Your task to perform on an android device: check the backup settings in the google photos Image 0: 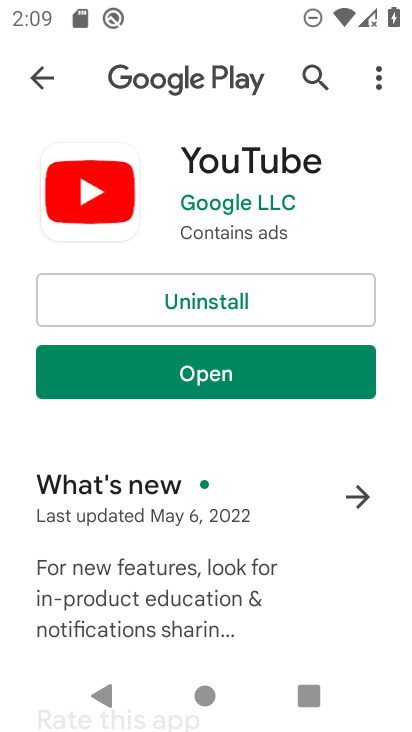
Step 0: press home button
Your task to perform on an android device: check the backup settings in the google photos Image 1: 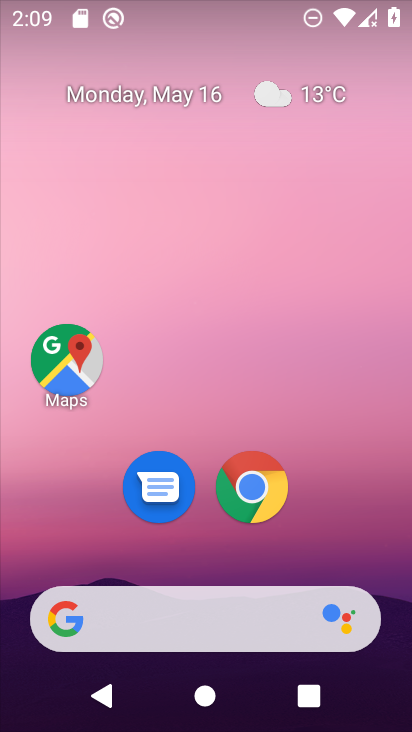
Step 1: drag from (403, 490) to (403, 286)
Your task to perform on an android device: check the backup settings in the google photos Image 2: 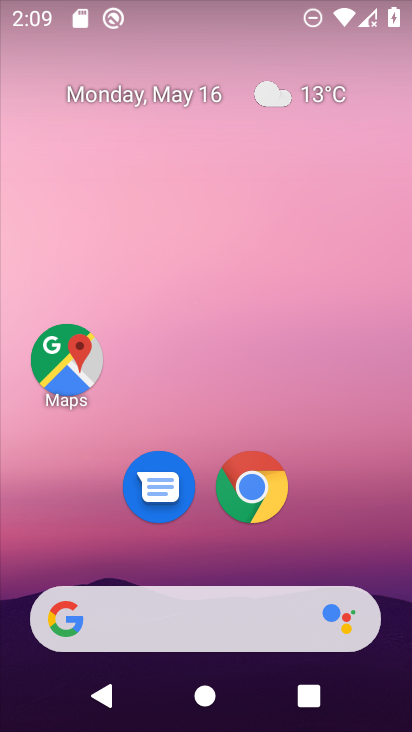
Step 2: drag from (390, 674) to (406, 244)
Your task to perform on an android device: check the backup settings in the google photos Image 3: 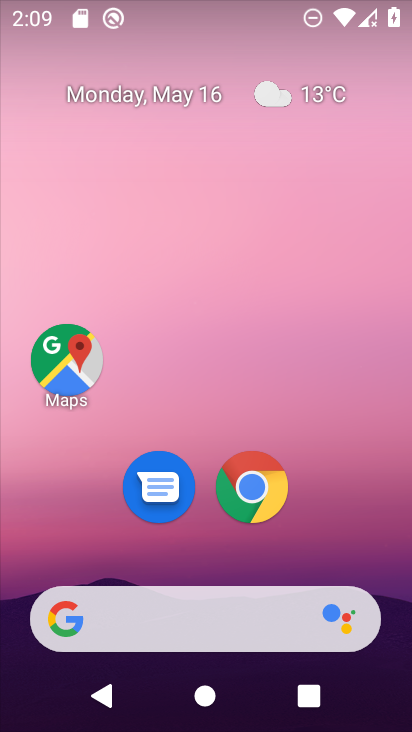
Step 3: drag from (395, 691) to (372, 272)
Your task to perform on an android device: check the backup settings in the google photos Image 4: 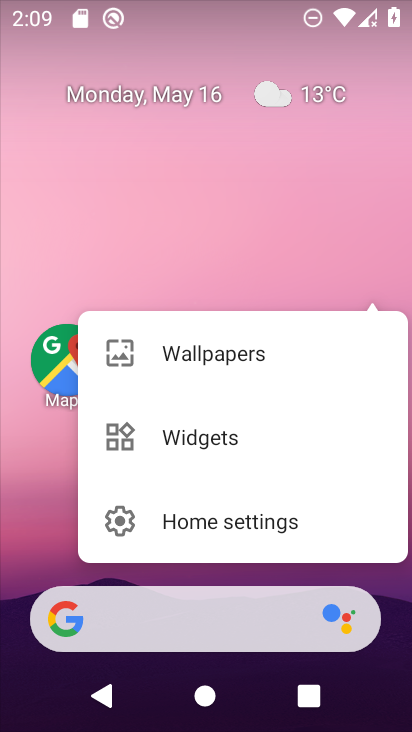
Step 4: click (345, 224)
Your task to perform on an android device: check the backup settings in the google photos Image 5: 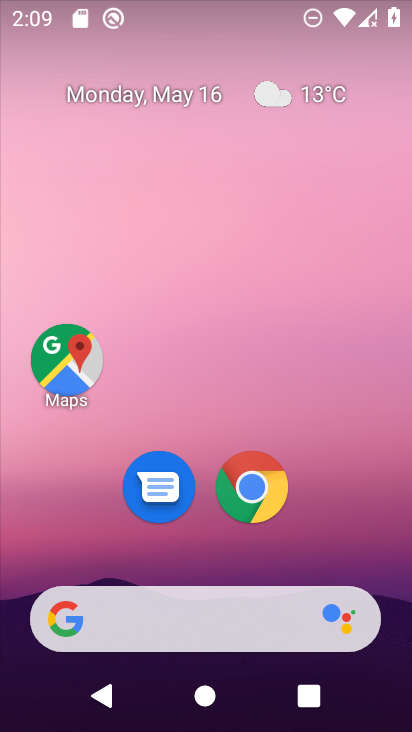
Step 5: drag from (395, 655) to (389, 288)
Your task to perform on an android device: check the backup settings in the google photos Image 6: 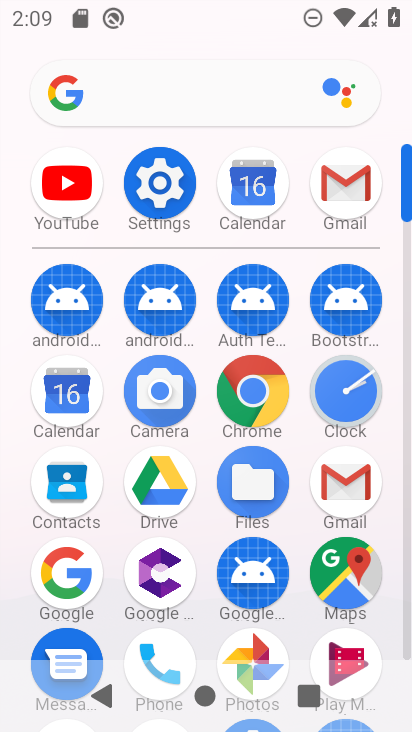
Step 6: click (250, 635)
Your task to perform on an android device: check the backup settings in the google photos Image 7: 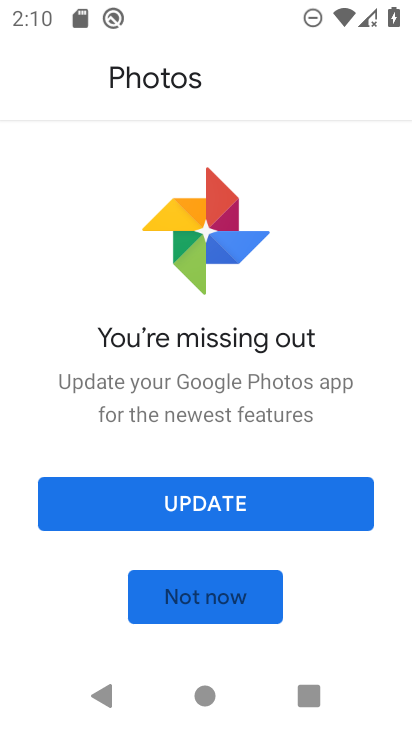
Step 7: click (203, 500)
Your task to perform on an android device: check the backup settings in the google photos Image 8: 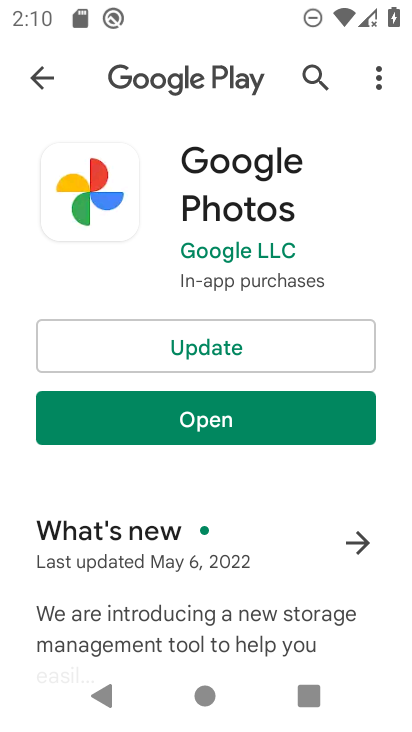
Step 8: click (245, 338)
Your task to perform on an android device: check the backup settings in the google photos Image 9: 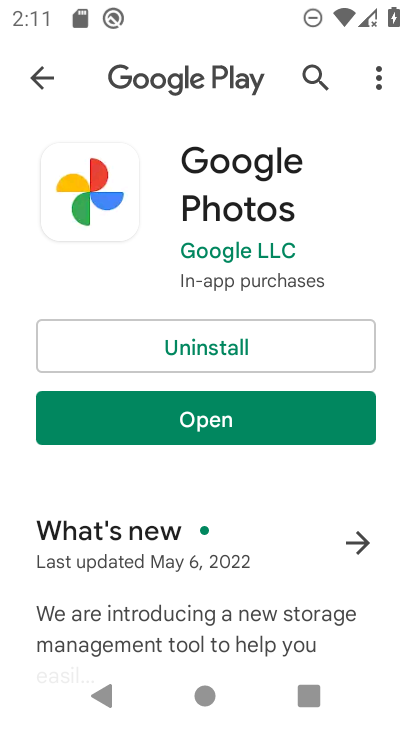
Step 9: click (205, 412)
Your task to perform on an android device: check the backup settings in the google photos Image 10: 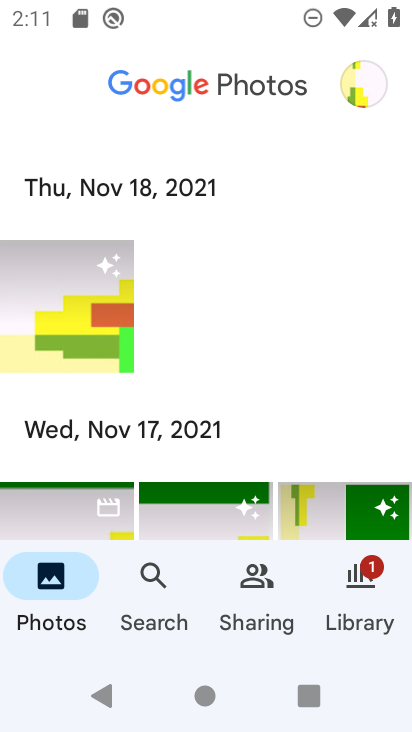
Step 10: click (370, 96)
Your task to perform on an android device: check the backup settings in the google photos Image 11: 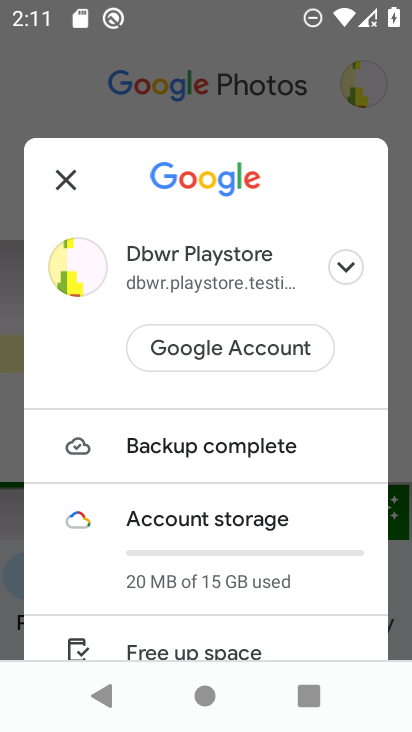
Step 11: click (190, 449)
Your task to perform on an android device: check the backup settings in the google photos Image 12: 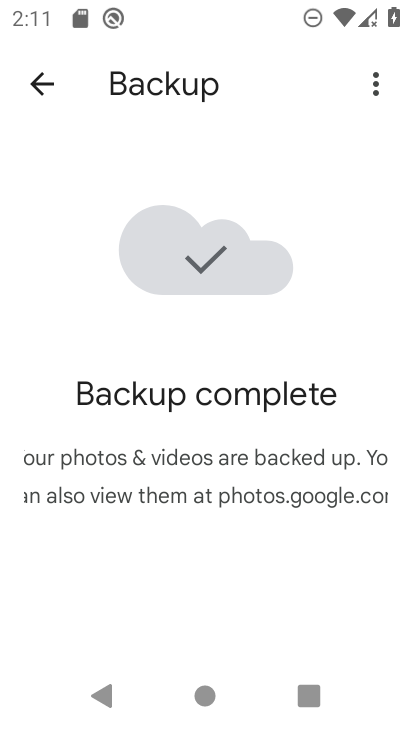
Step 12: click (369, 79)
Your task to perform on an android device: check the backup settings in the google photos Image 13: 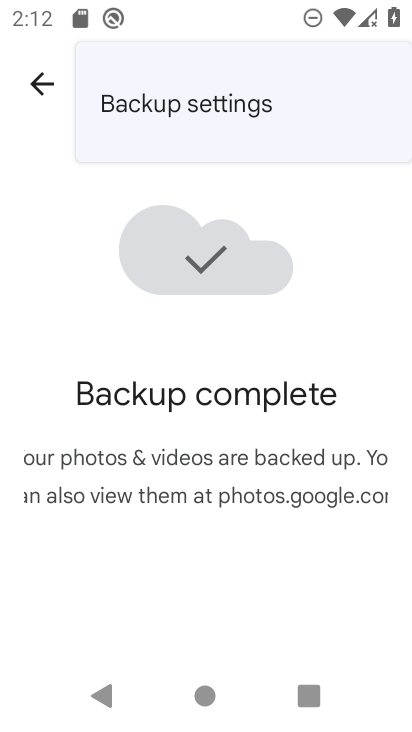
Step 13: click (217, 109)
Your task to perform on an android device: check the backup settings in the google photos Image 14: 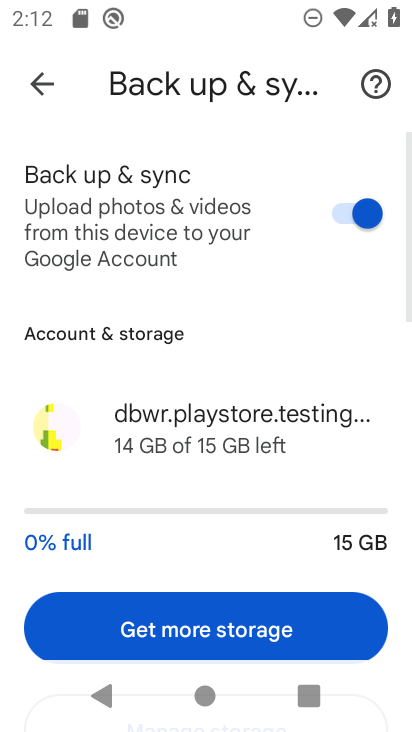
Step 14: task complete